Your task to perform on an android device: Open Google Maps Image 0: 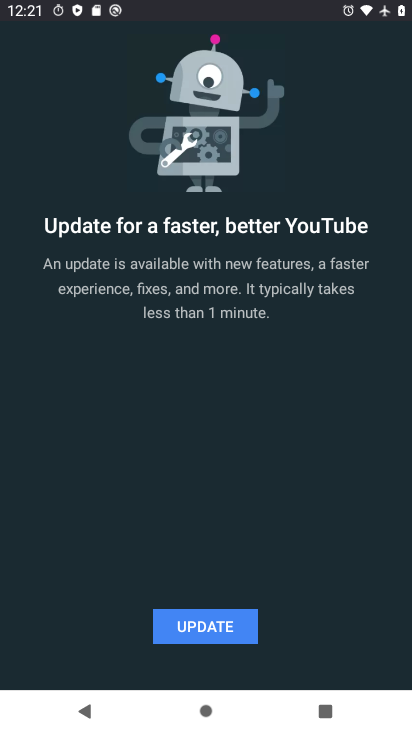
Step 0: press home button
Your task to perform on an android device: Open Google Maps Image 1: 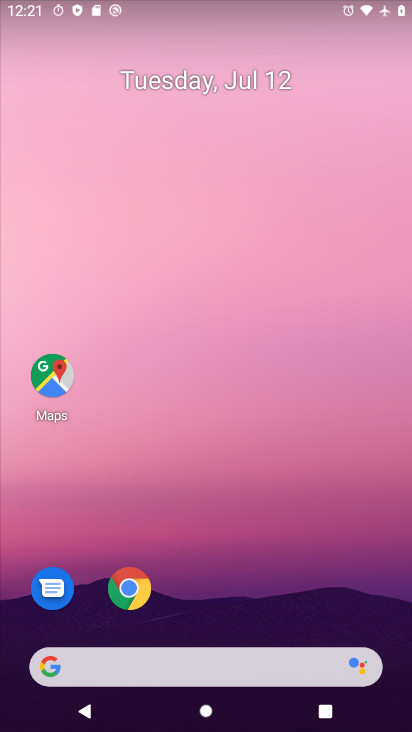
Step 1: click (39, 383)
Your task to perform on an android device: Open Google Maps Image 2: 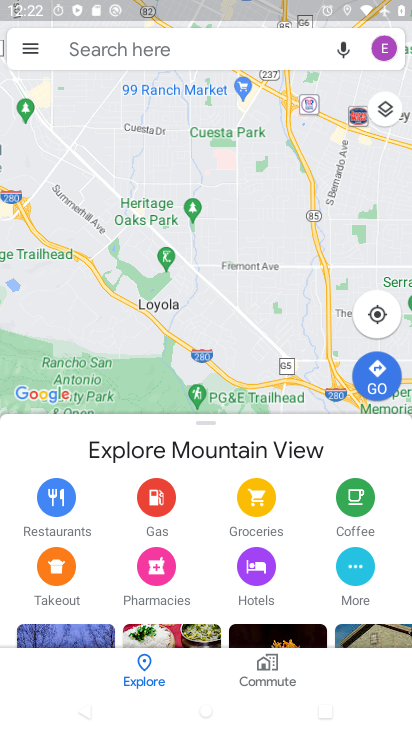
Step 2: task complete